Your task to perform on an android device: Open maps Image 0: 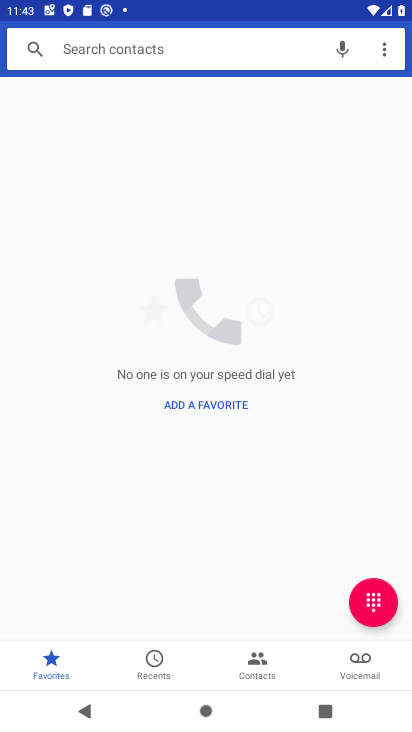
Step 0: press back button
Your task to perform on an android device: Open maps Image 1: 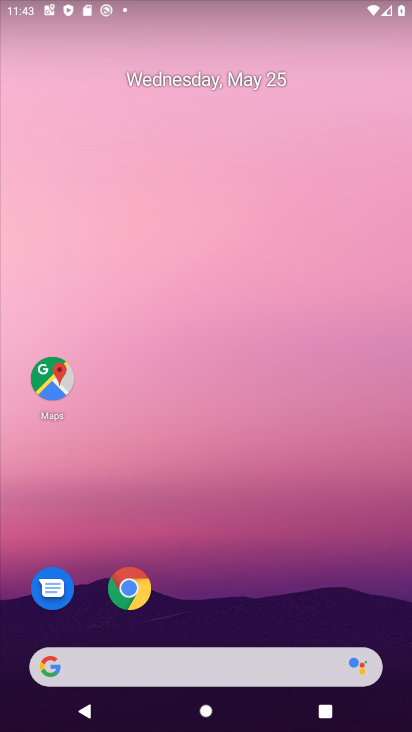
Step 1: drag from (261, 493) to (238, 2)
Your task to perform on an android device: Open maps Image 2: 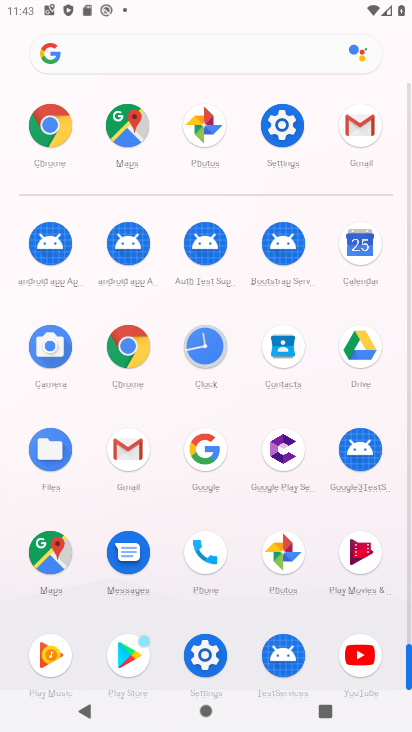
Step 2: click (50, 556)
Your task to perform on an android device: Open maps Image 3: 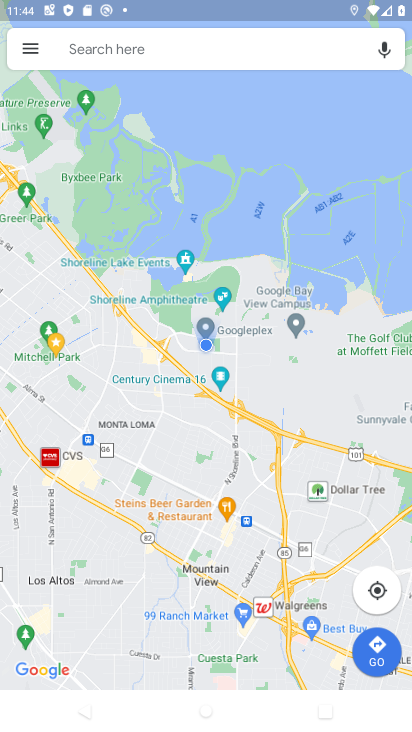
Step 3: task complete